Your task to perform on an android device: see tabs open on other devices in the chrome app Image 0: 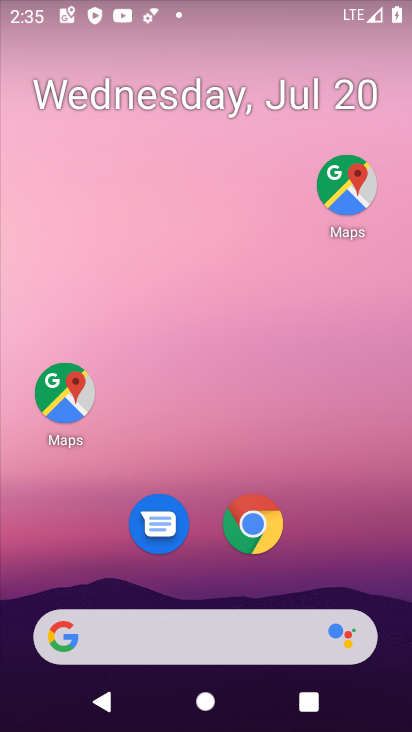
Step 0: drag from (240, 448) to (225, 39)
Your task to perform on an android device: see tabs open on other devices in the chrome app Image 1: 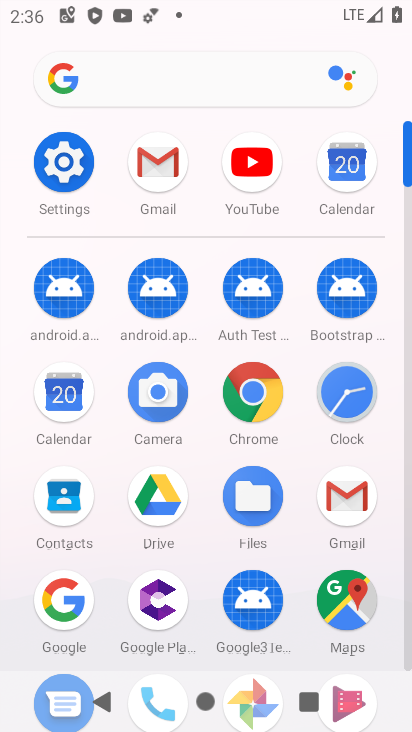
Step 1: click (255, 394)
Your task to perform on an android device: see tabs open on other devices in the chrome app Image 2: 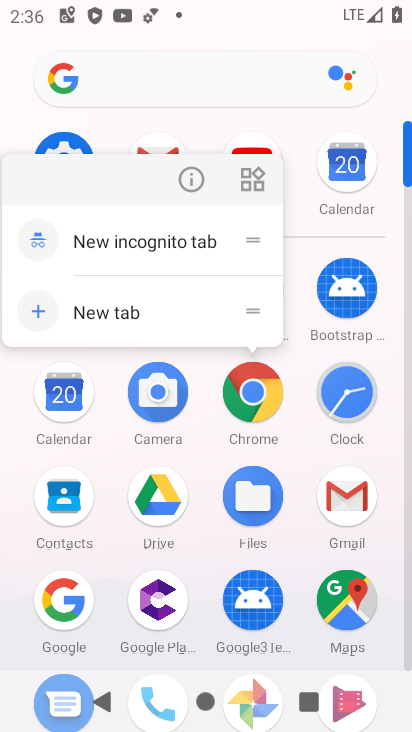
Step 2: click (264, 389)
Your task to perform on an android device: see tabs open on other devices in the chrome app Image 3: 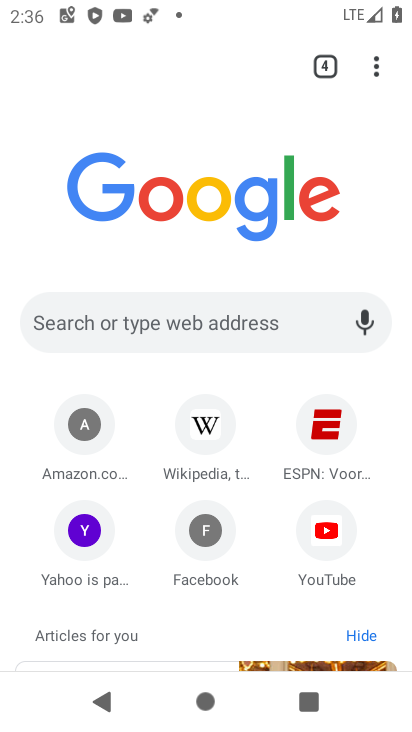
Step 3: click (378, 62)
Your task to perform on an android device: see tabs open on other devices in the chrome app Image 4: 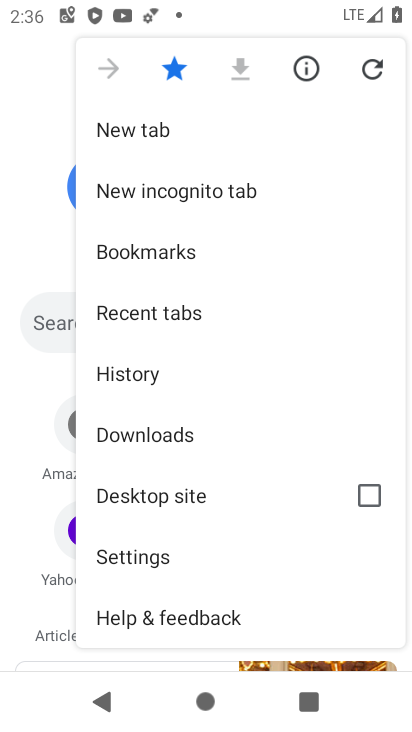
Step 4: click (193, 309)
Your task to perform on an android device: see tabs open on other devices in the chrome app Image 5: 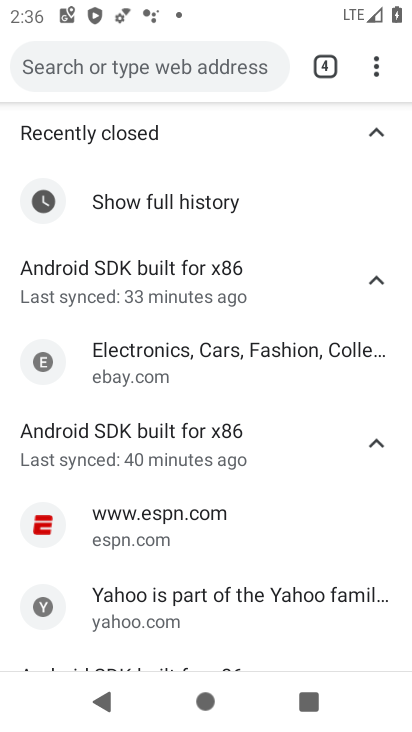
Step 5: task complete